Your task to perform on an android device: set the stopwatch Image 0: 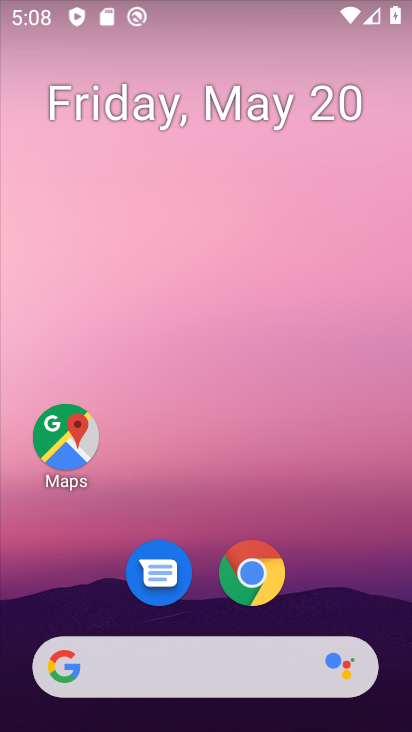
Step 0: drag from (330, 375) to (273, 65)
Your task to perform on an android device: set the stopwatch Image 1: 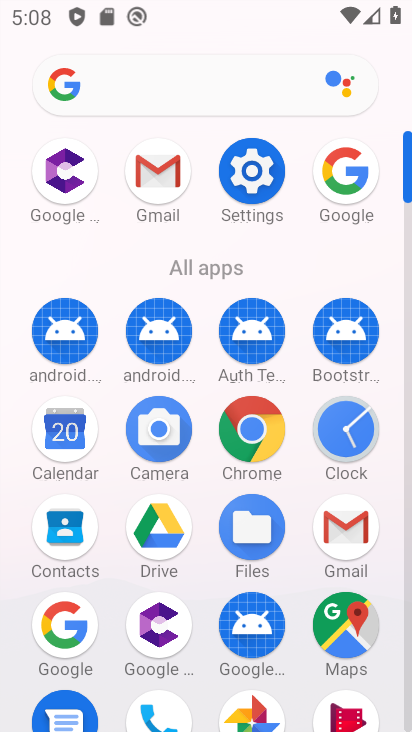
Step 1: click (345, 425)
Your task to perform on an android device: set the stopwatch Image 2: 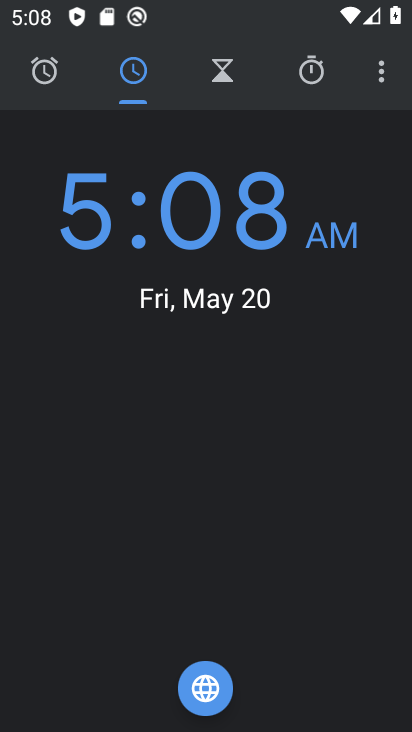
Step 2: click (303, 88)
Your task to perform on an android device: set the stopwatch Image 3: 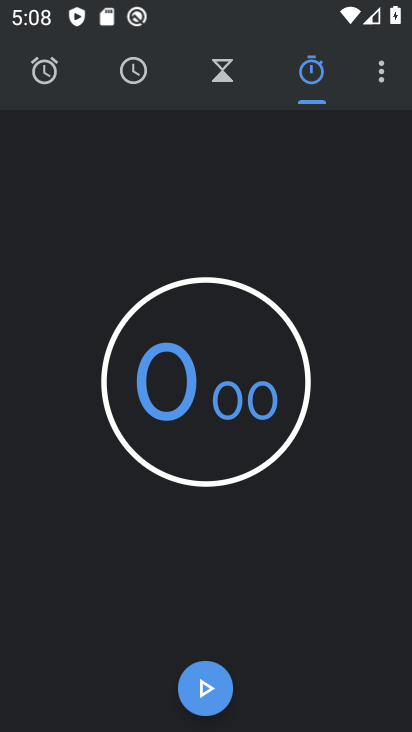
Step 3: click (215, 705)
Your task to perform on an android device: set the stopwatch Image 4: 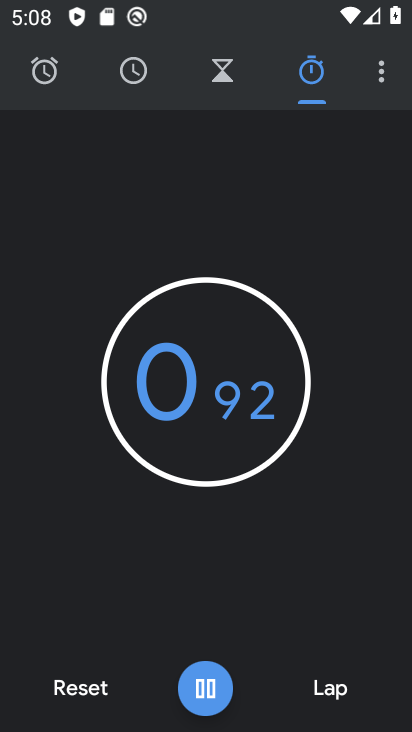
Step 4: task complete